Your task to perform on an android device: Open privacy settings Image 0: 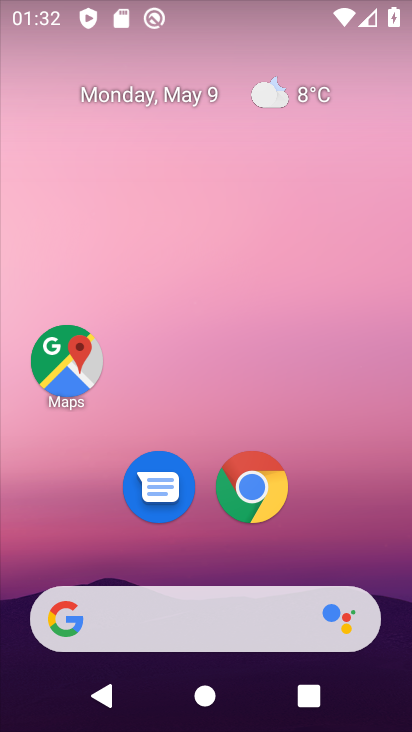
Step 0: drag from (356, 511) to (280, 10)
Your task to perform on an android device: Open privacy settings Image 1: 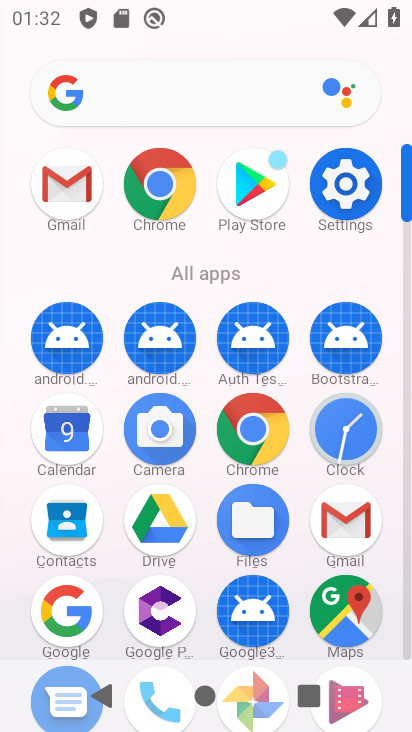
Step 1: click (349, 162)
Your task to perform on an android device: Open privacy settings Image 2: 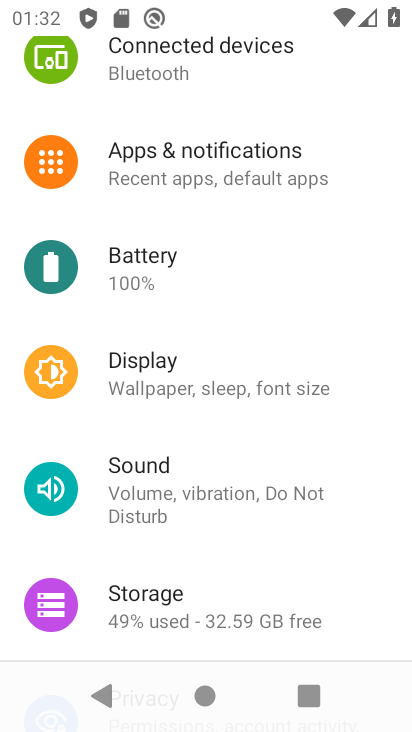
Step 2: drag from (250, 550) to (176, 182)
Your task to perform on an android device: Open privacy settings Image 3: 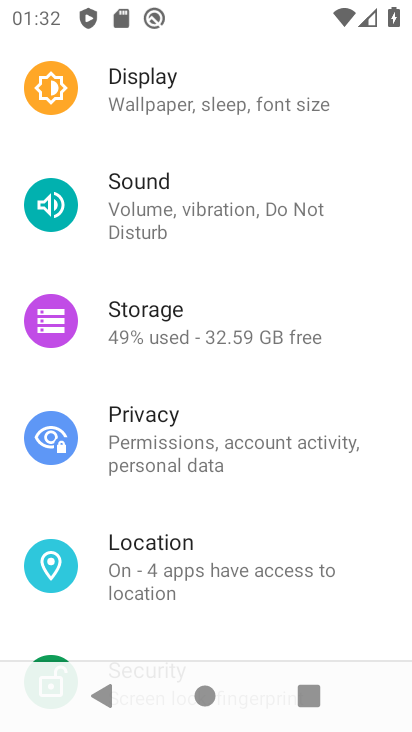
Step 3: click (132, 431)
Your task to perform on an android device: Open privacy settings Image 4: 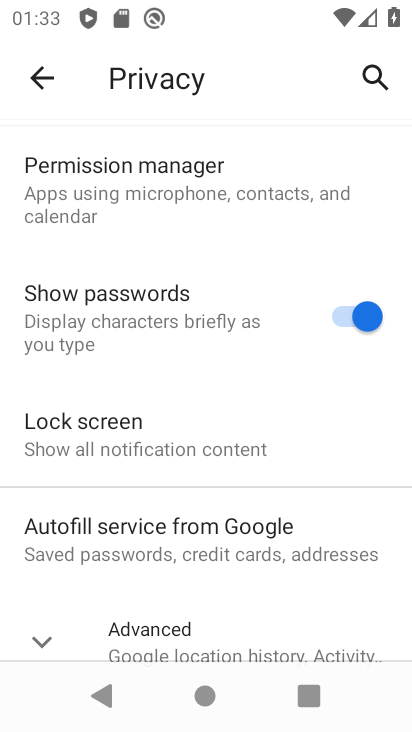
Step 4: task complete